Your task to perform on an android device: Search for vegetarian restaurants on Maps Image 0: 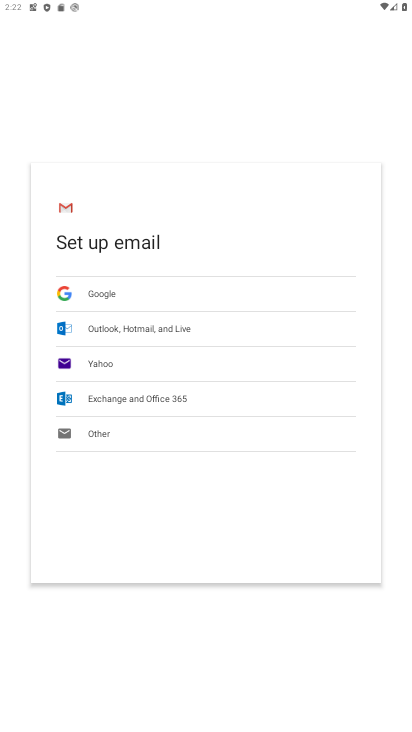
Step 0: press home button
Your task to perform on an android device: Search for vegetarian restaurants on Maps Image 1: 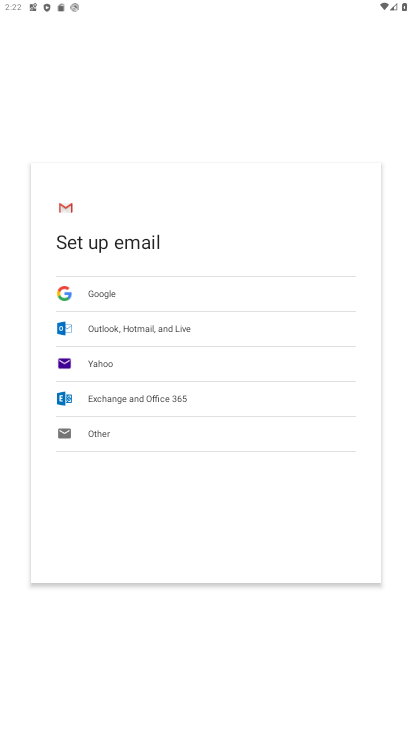
Step 1: press home button
Your task to perform on an android device: Search for vegetarian restaurants on Maps Image 2: 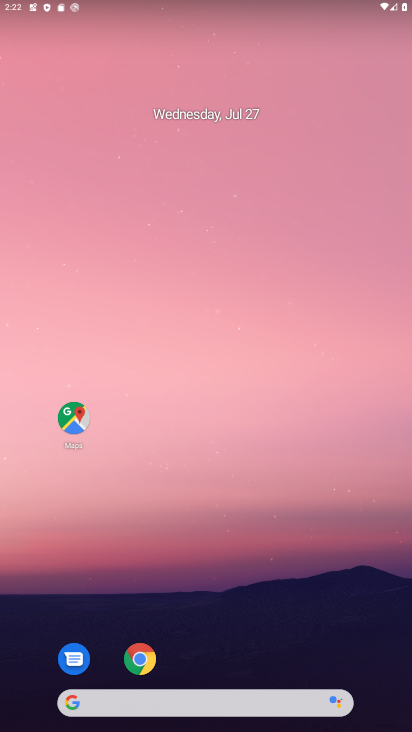
Step 2: drag from (182, 727) to (180, 247)
Your task to perform on an android device: Search for vegetarian restaurants on Maps Image 3: 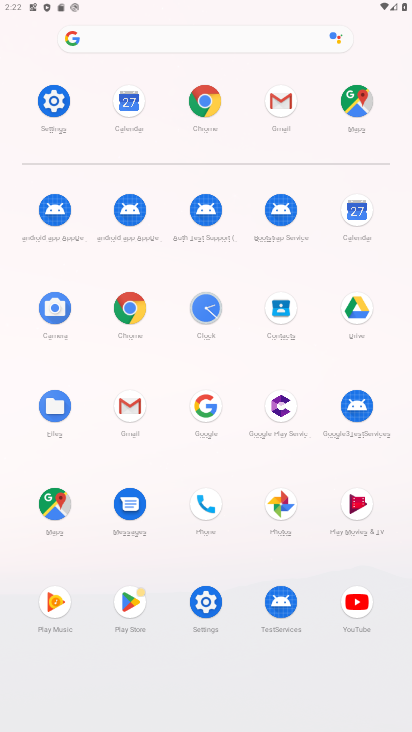
Step 3: click (44, 500)
Your task to perform on an android device: Search for vegetarian restaurants on Maps Image 4: 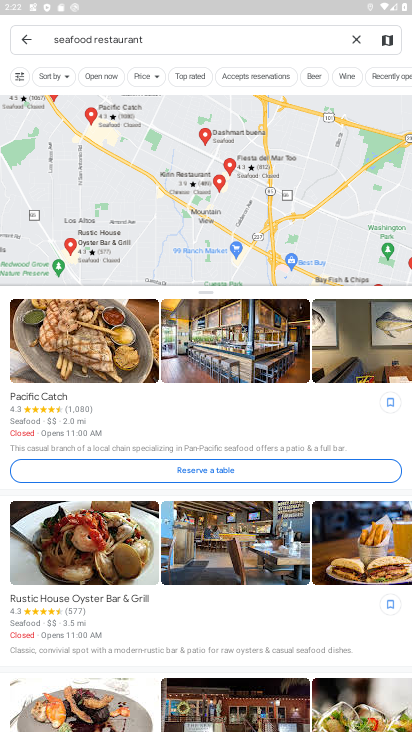
Step 4: click (356, 34)
Your task to perform on an android device: Search for vegetarian restaurants on Maps Image 5: 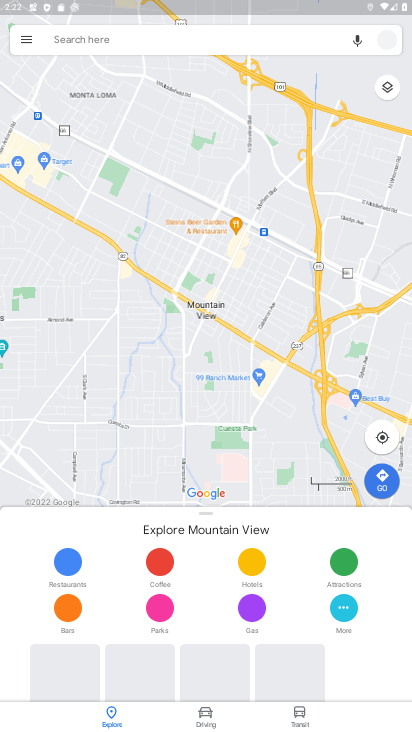
Step 5: click (191, 37)
Your task to perform on an android device: Search for vegetarian restaurants on Maps Image 6: 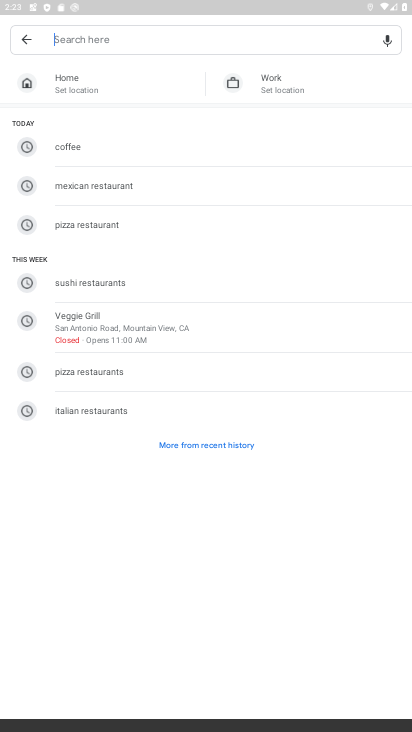
Step 6: click (136, 34)
Your task to perform on an android device: Search for vegetarian restaurants on Maps Image 7: 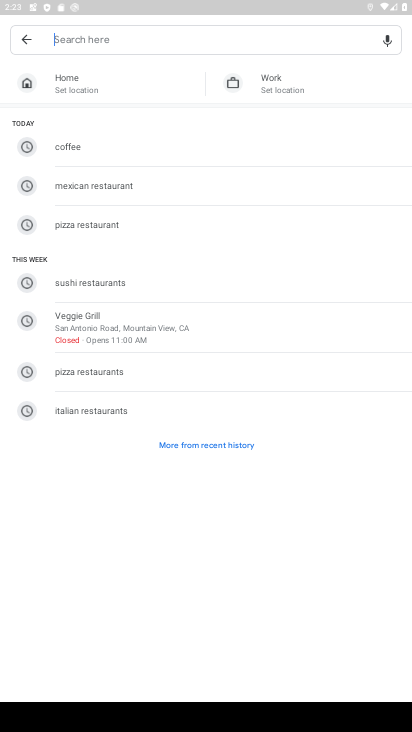
Step 7: type "vegetarian restaurants"
Your task to perform on an android device: Search for vegetarian restaurants on Maps Image 8: 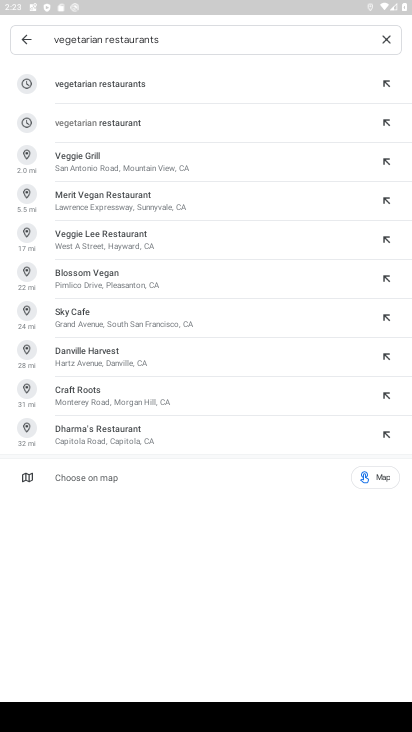
Step 8: click (106, 81)
Your task to perform on an android device: Search for vegetarian restaurants on Maps Image 9: 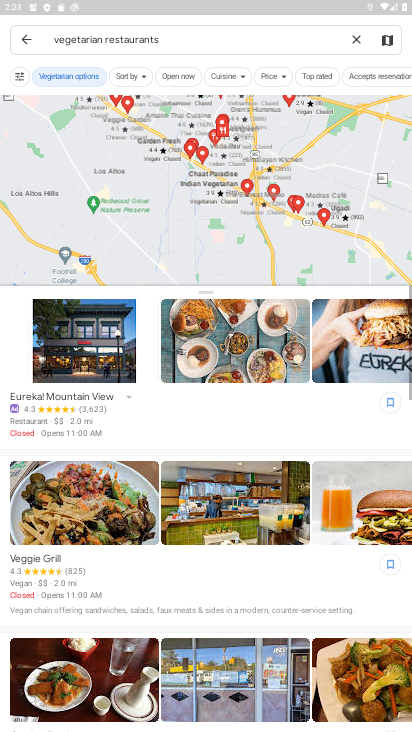
Step 9: task complete